Your task to perform on an android device: turn off translation in the chrome app Image 0: 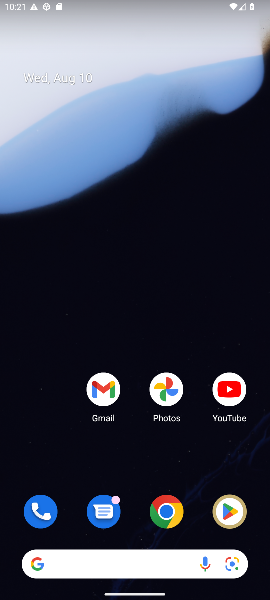
Step 0: click (164, 509)
Your task to perform on an android device: turn off translation in the chrome app Image 1: 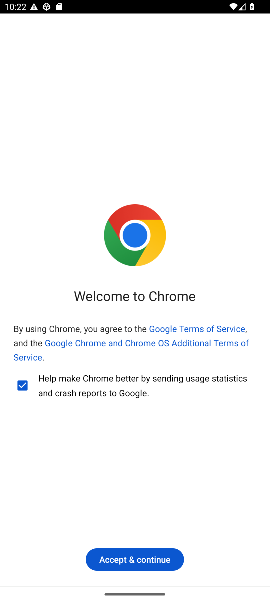
Step 1: click (157, 563)
Your task to perform on an android device: turn off translation in the chrome app Image 2: 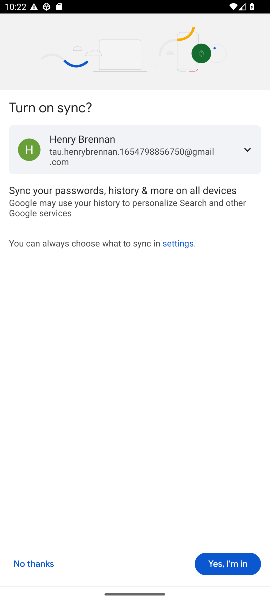
Step 2: click (233, 555)
Your task to perform on an android device: turn off translation in the chrome app Image 3: 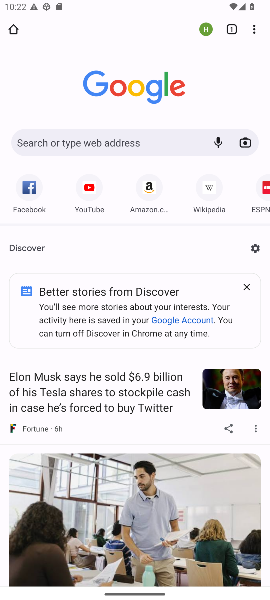
Step 3: click (260, 26)
Your task to perform on an android device: turn off translation in the chrome app Image 4: 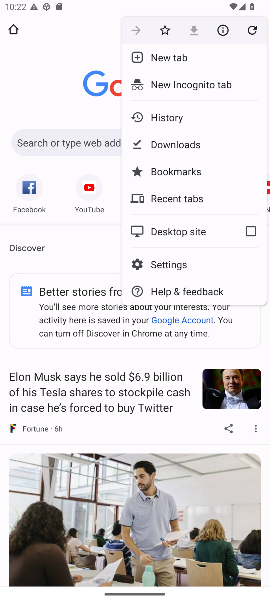
Step 4: click (186, 258)
Your task to perform on an android device: turn off translation in the chrome app Image 5: 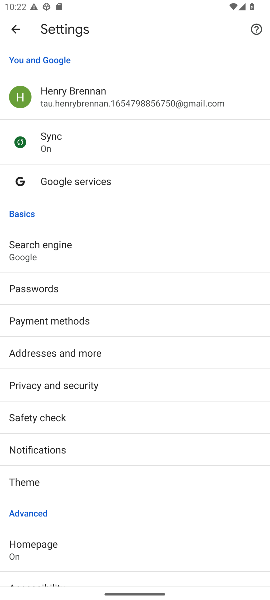
Step 5: drag from (92, 199) to (120, 113)
Your task to perform on an android device: turn off translation in the chrome app Image 6: 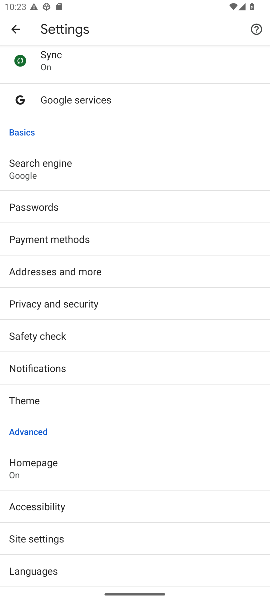
Step 6: click (56, 571)
Your task to perform on an android device: turn off translation in the chrome app Image 7: 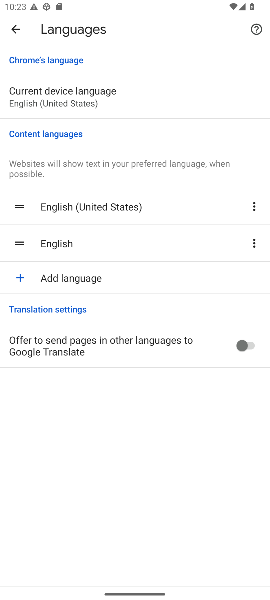
Step 7: task complete